Your task to perform on an android device: Open Maps and search for coffee Image 0: 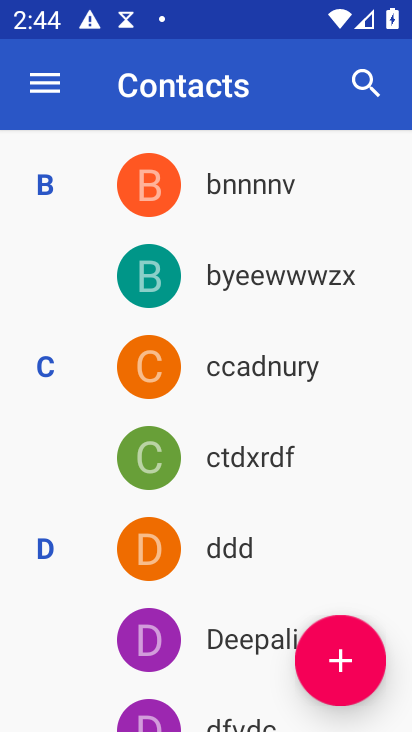
Step 0: press home button
Your task to perform on an android device: Open Maps and search for coffee Image 1: 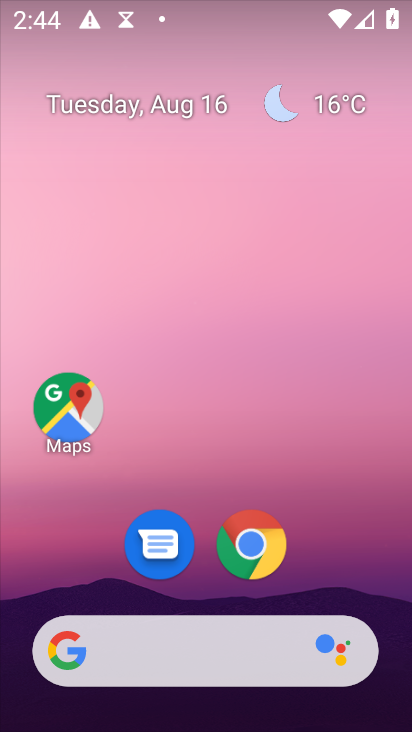
Step 1: drag from (151, 674) to (232, 1)
Your task to perform on an android device: Open Maps and search for coffee Image 2: 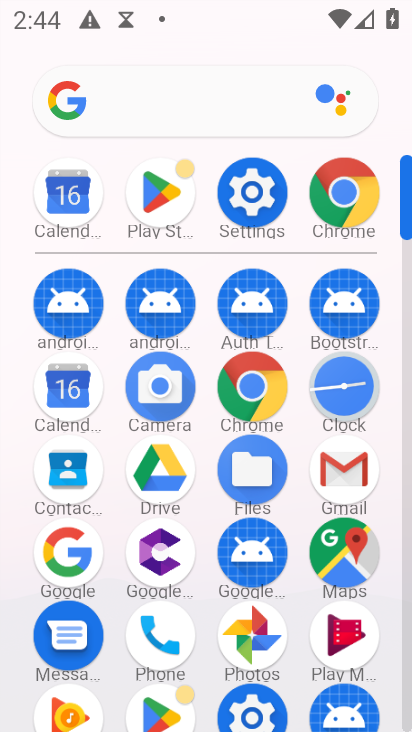
Step 2: click (342, 556)
Your task to perform on an android device: Open Maps and search for coffee Image 3: 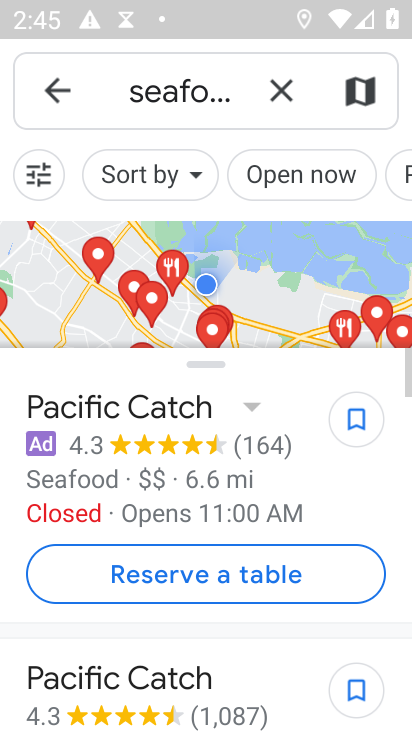
Step 3: click (273, 92)
Your task to perform on an android device: Open Maps and search for coffee Image 4: 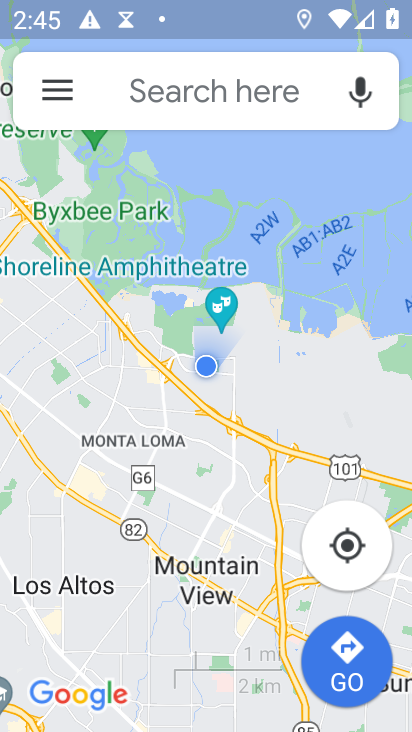
Step 4: click (194, 93)
Your task to perform on an android device: Open Maps and search for coffee Image 5: 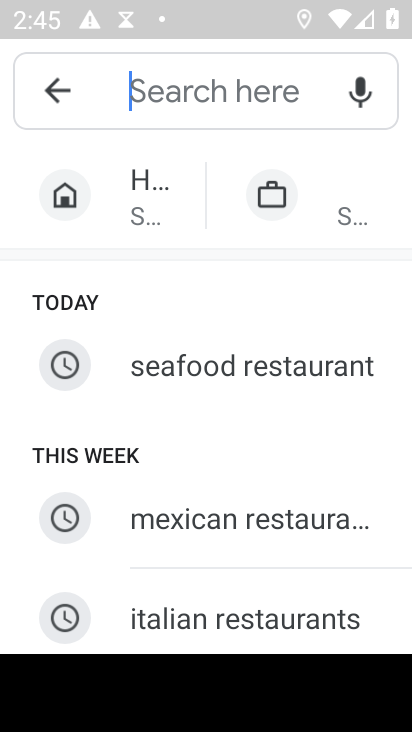
Step 5: type "coffee"
Your task to perform on an android device: Open Maps and search for coffee Image 6: 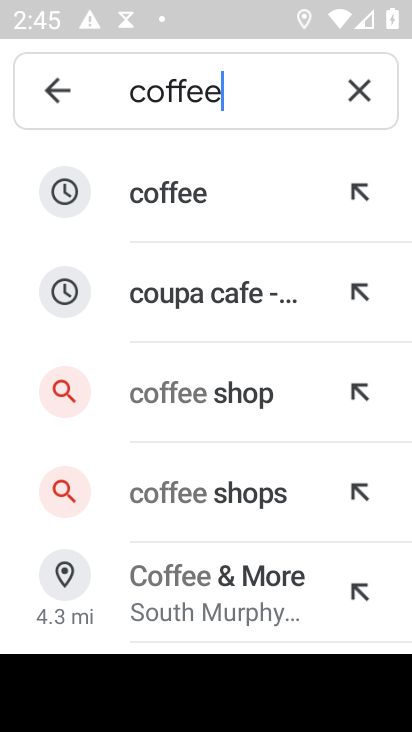
Step 6: click (163, 199)
Your task to perform on an android device: Open Maps and search for coffee Image 7: 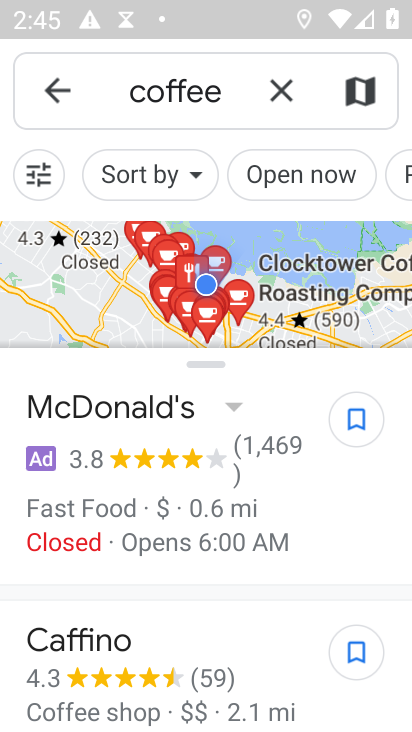
Step 7: task complete